Your task to perform on an android device: Open settings Image 0: 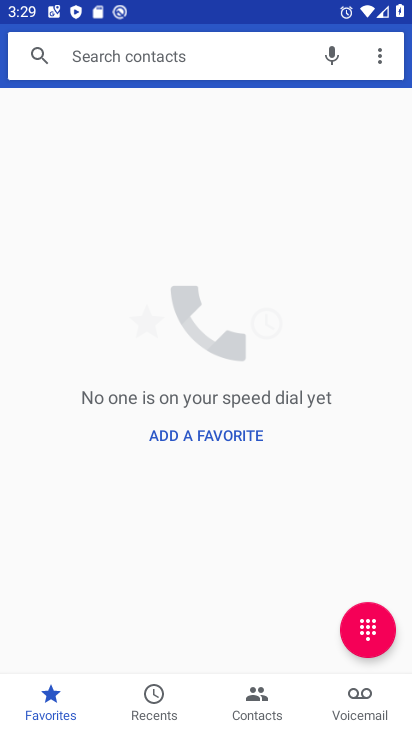
Step 0: press home button
Your task to perform on an android device: Open settings Image 1: 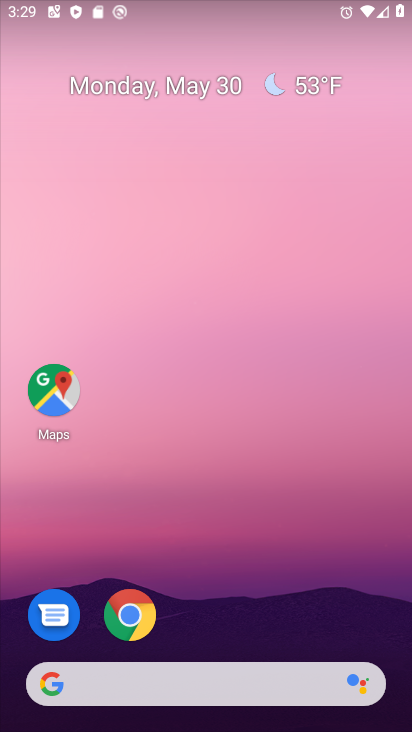
Step 1: drag from (362, 582) to (298, 67)
Your task to perform on an android device: Open settings Image 2: 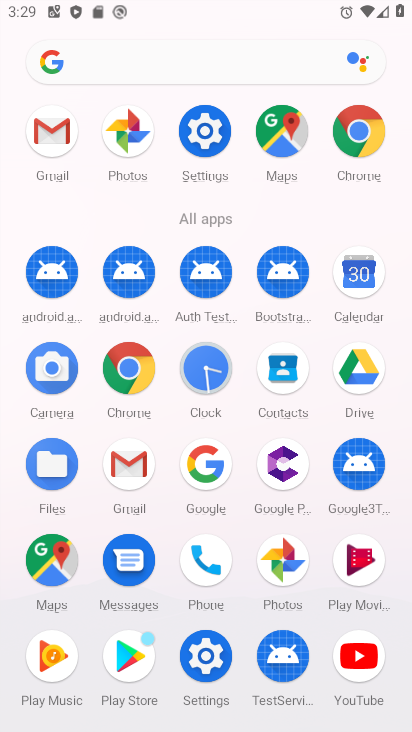
Step 2: click (194, 133)
Your task to perform on an android device: Open settings Image 3: 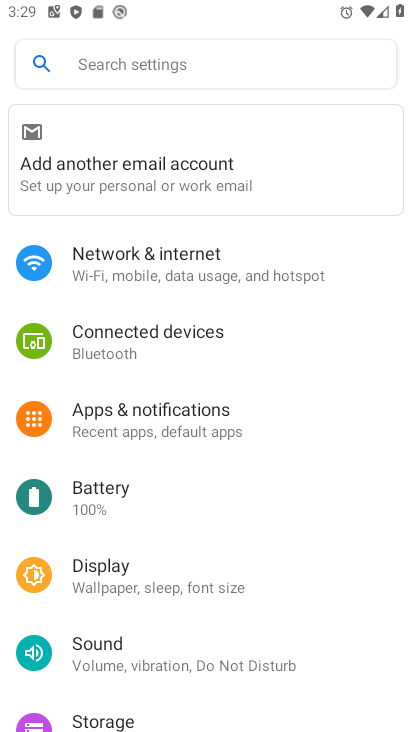
Step 3: task complete